Your task to perform on an android device: add a contact in the contacts app Image 0: 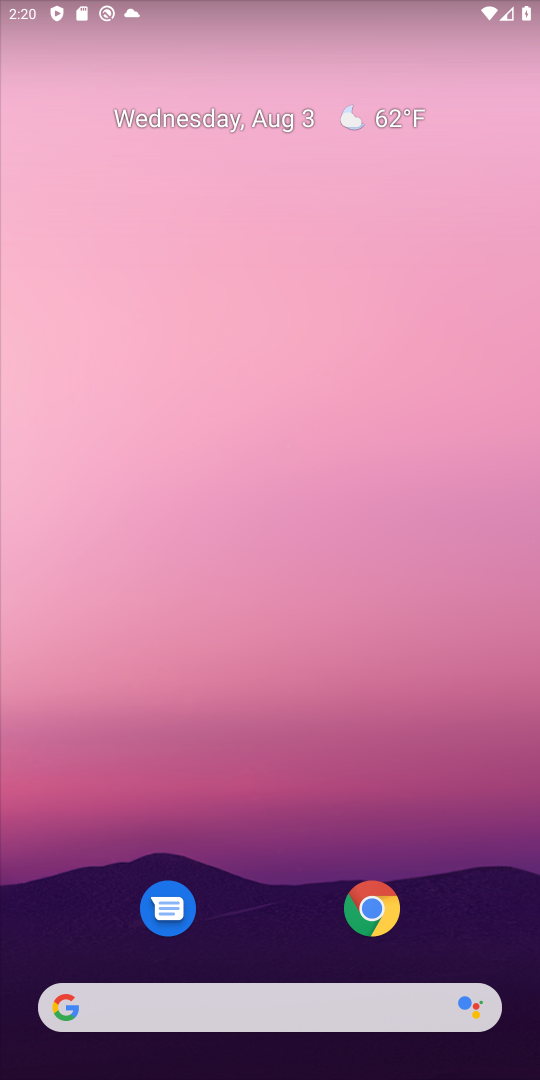
Step 0: drag from (228, 972) to (253, 910)
Your task to perform on an android device: add a contact in the contacts app Image 1: 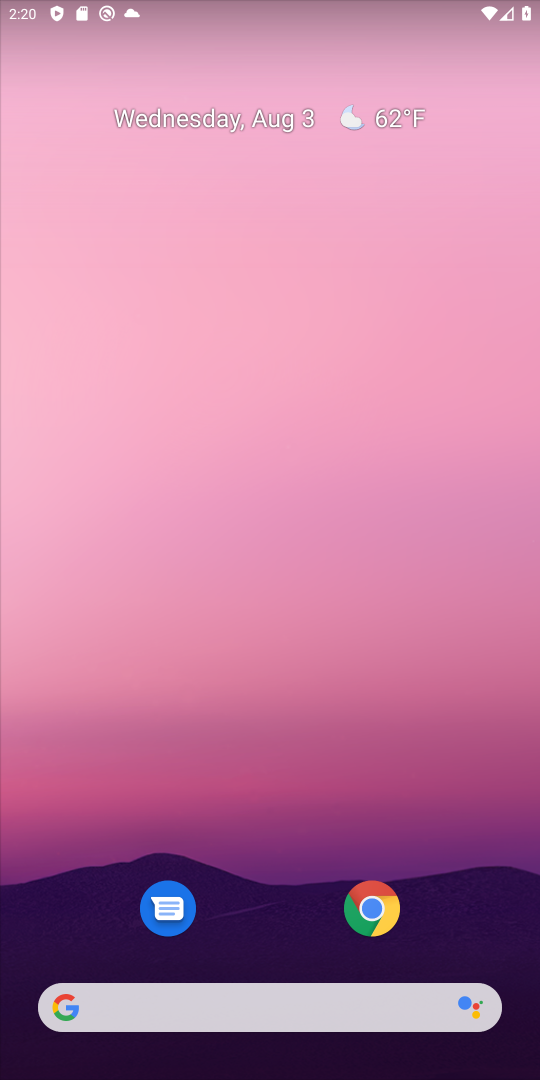
Step 1: drag from (318, 871) to (332, 63)
Your task to perform on an android device: add a contact in the contacts app Image 2: 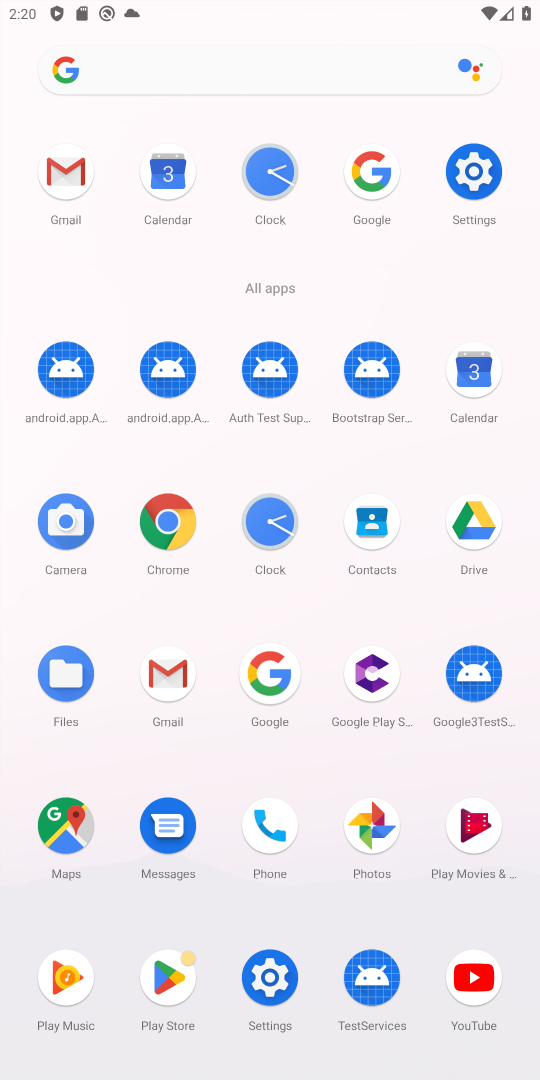
Step 2: click (378, 539)
Your task to perform on an android device: add a contact in the contacts app Image 3: 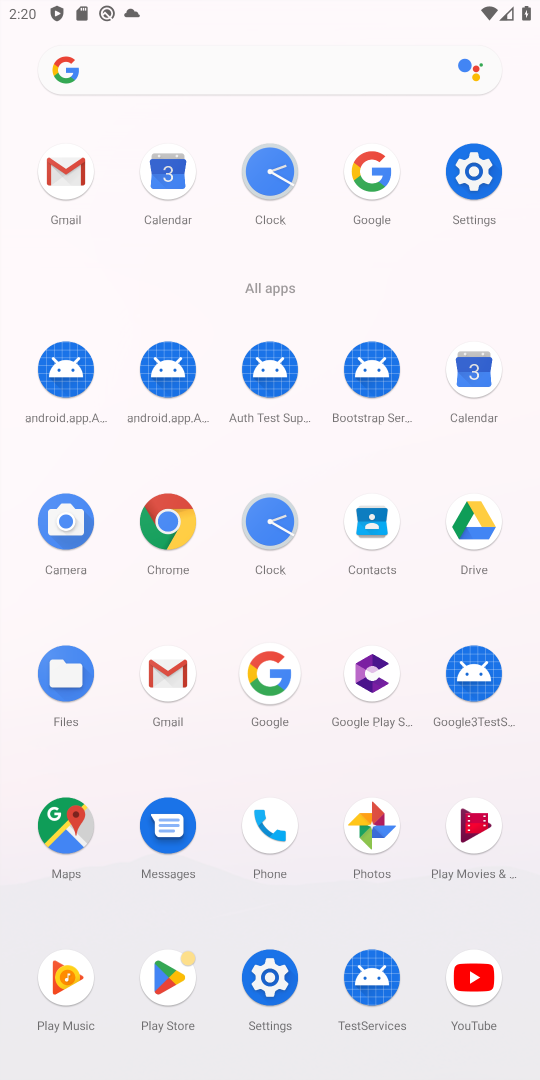
Step 3: click (378, 539)
Your task to perform on an android device: add a contact in the contacts app Image 4: 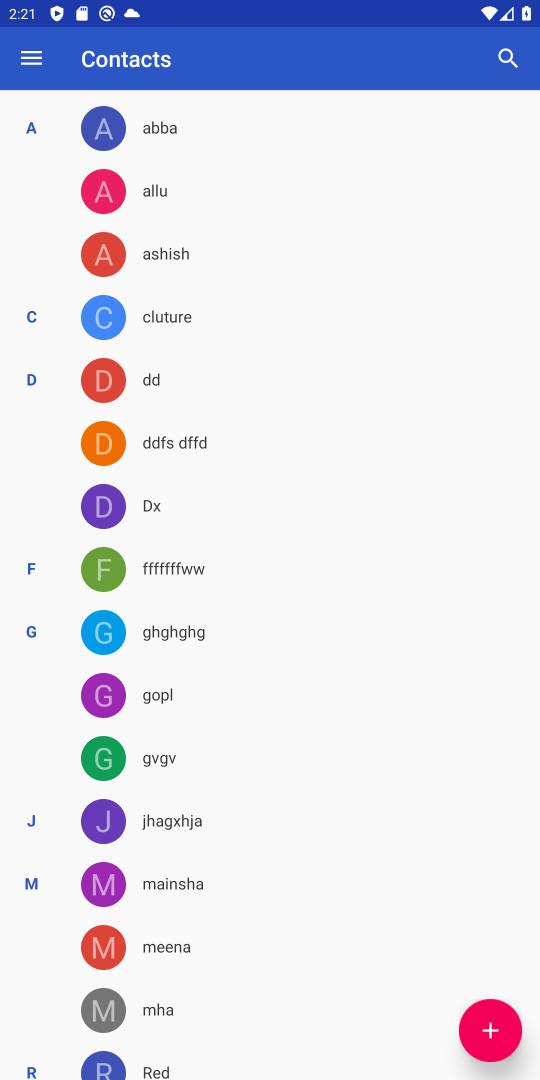
Step 4: click (494, 1037)
Your task to perform on an android device: add a contact in the contacts app Image 5: 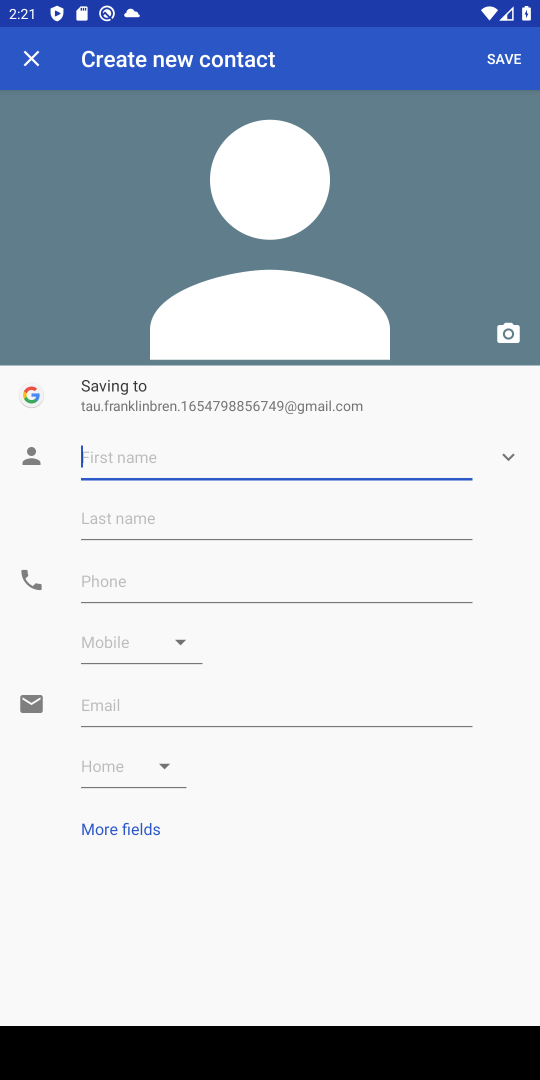
Step 5: type "gjbhv"
Your task to perform on an android device: add a contact in the contacts app Image 6: 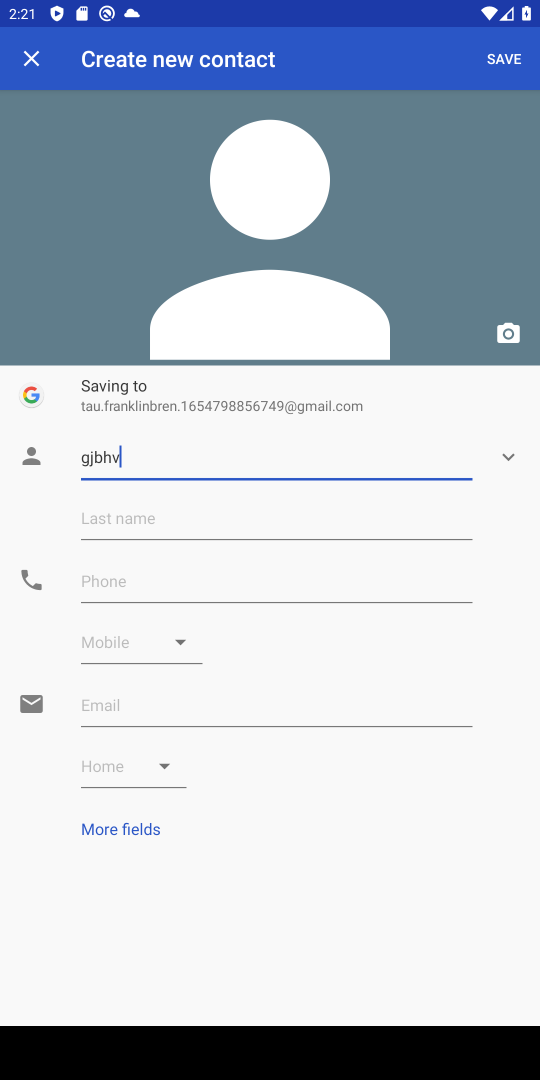
Step 6: click (314, 574)
Your task to perform on an android device: add a contact in the contacts app Image 7: 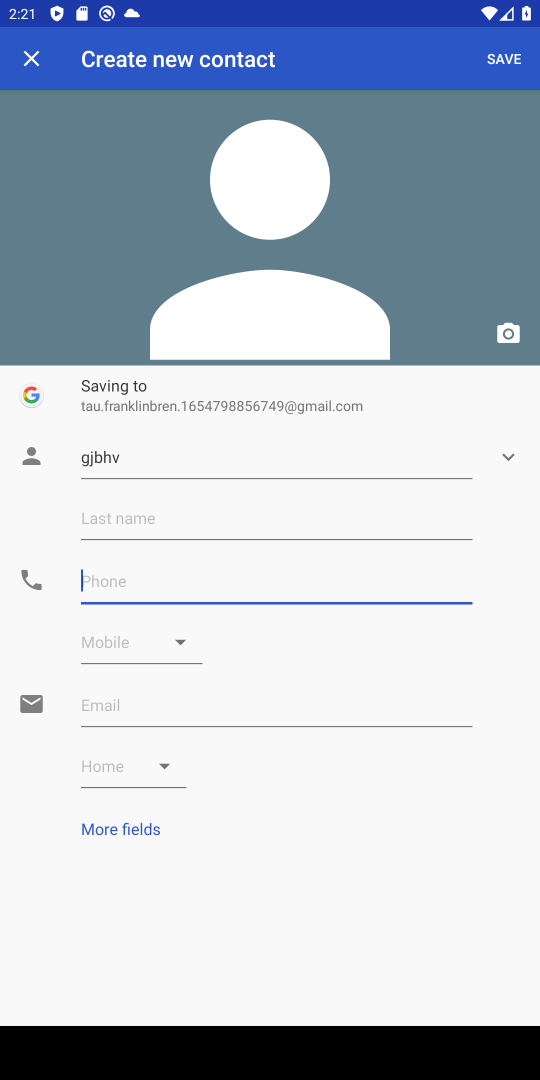
Step 7: click (316, 584)
Your task to perform on an android device: add a contact in the contacts app Image 8: 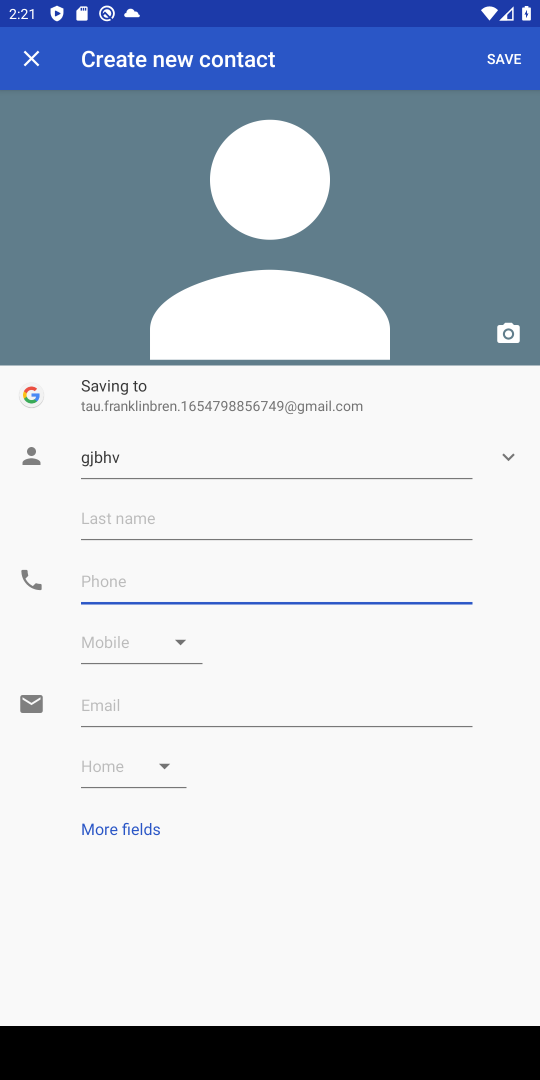
Step 8: type "687"
Your task to perform on an android device: add a contact in the contacts app Image 9: 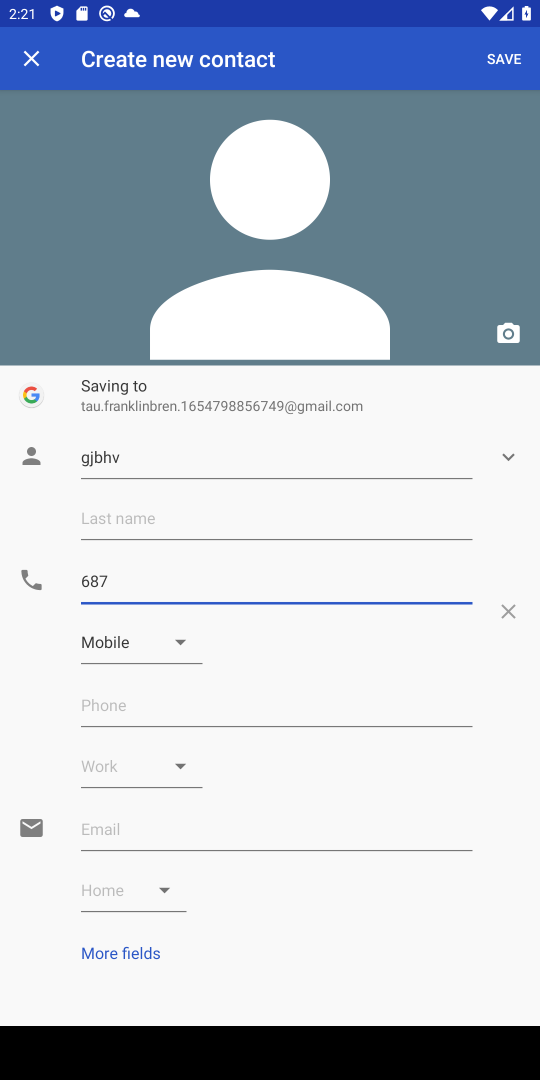
Step 9: click (482, 62)
Your task to perform on an android device: add a contact in the contacts app Image 10: 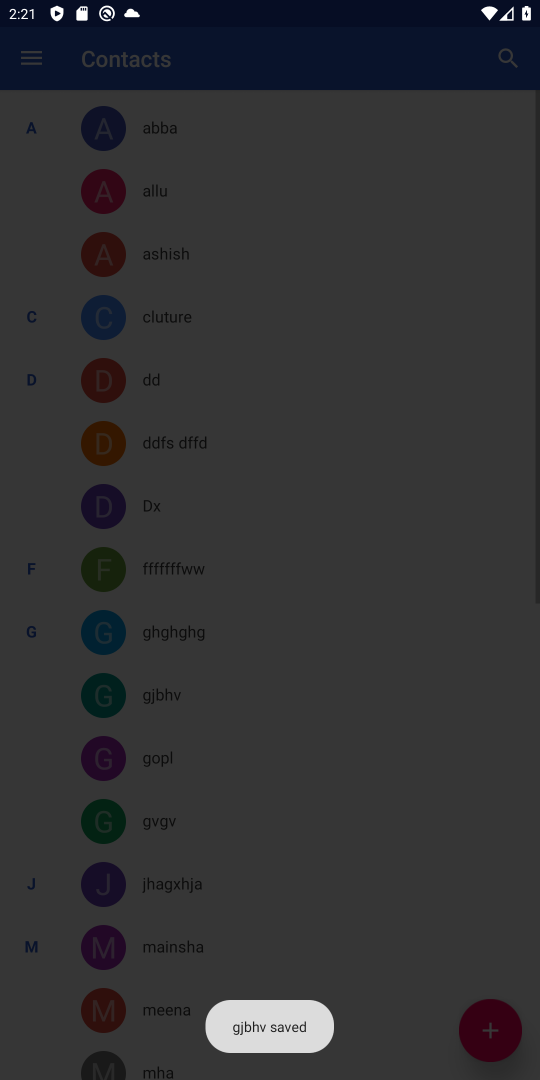
Step 10: task complete